Your task to perform on an android device: Go to Wikipedia Image 0: 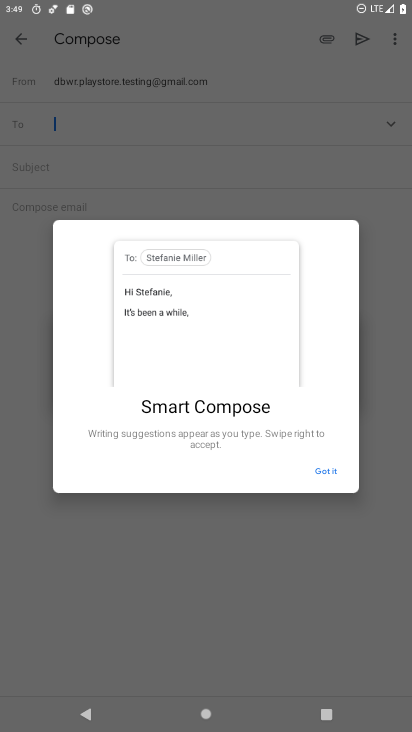
Step 0: press home button
Your task to perform on an android device: Go to Wikipedia Image 1: 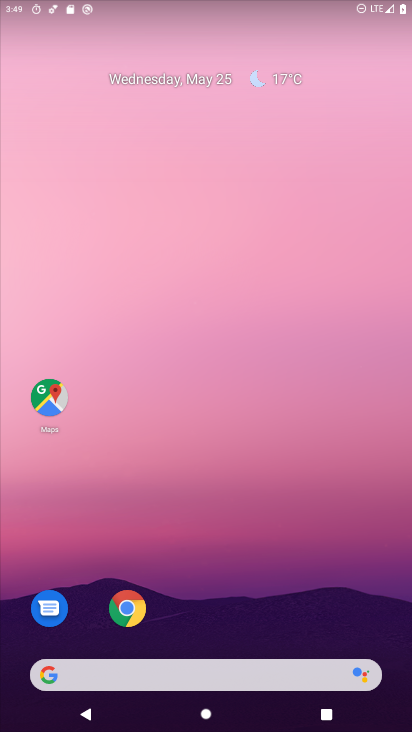
Step 1: click (130, 608)
Your task to perform on an android device: Go to Wikipedia Image 2: 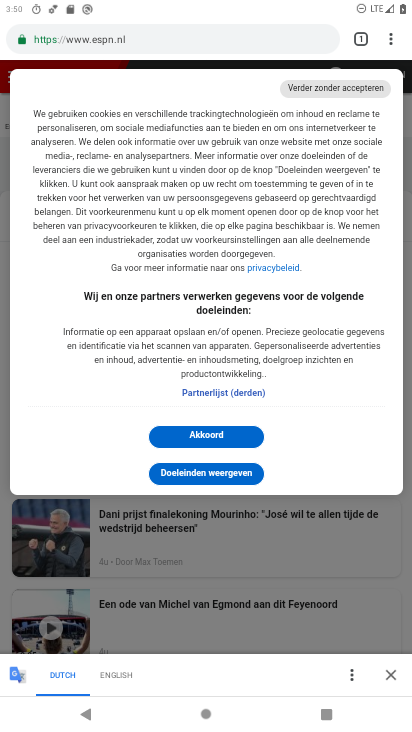
Step 2: click (159, 46)
Your task to perform on an android device: Go to Wikipedia Image 3: 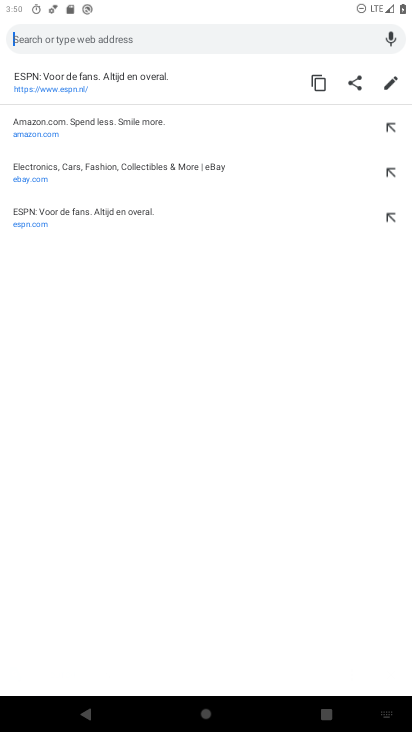
Step 3: type "wkipedia"
Your task to perform on an android device: Go to Wikipedia Image 4: 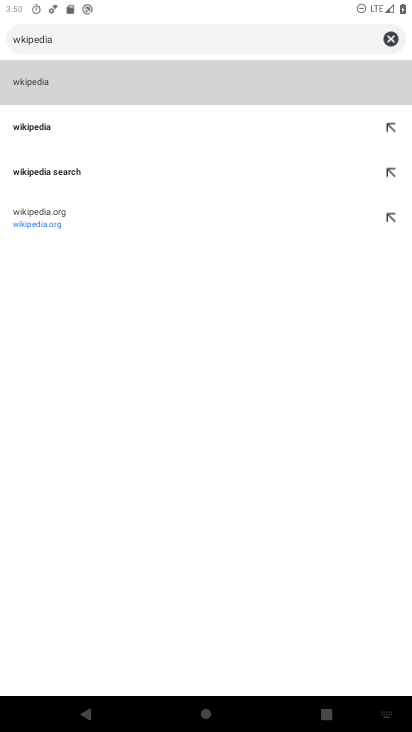
Step 4: click (42, 224)
Your task to perform on an android device: Go to Wikipedia Image 5: 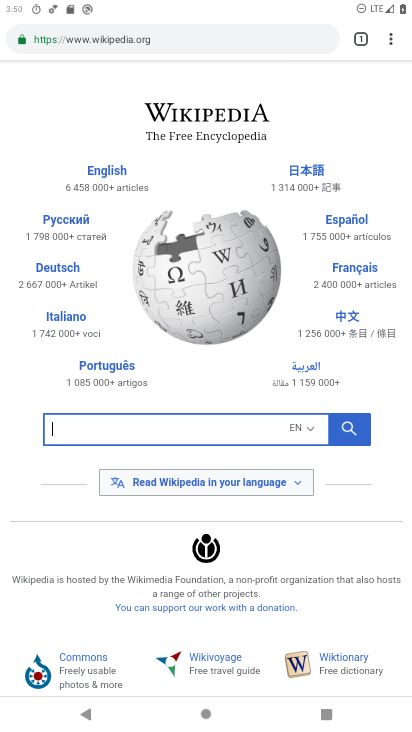
Step 5: task complete